Your task to perform on an android device: find which apps use the phone's location Image 0: 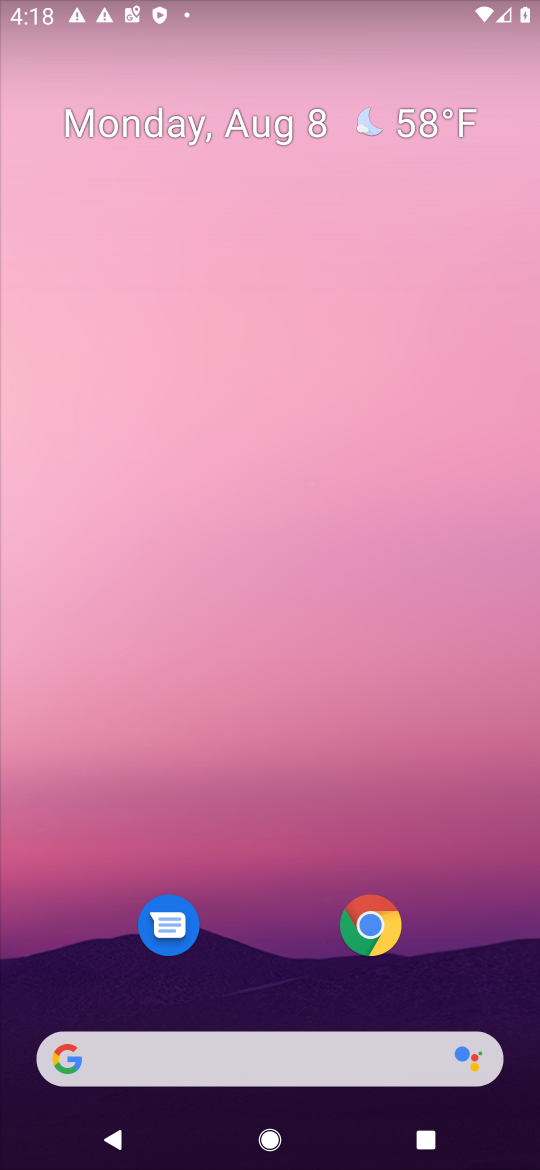
Step 0: drag from (265, 1018) to (174, 297)
Your task to perform on an android device: find which apps use the phone's location Image 1: 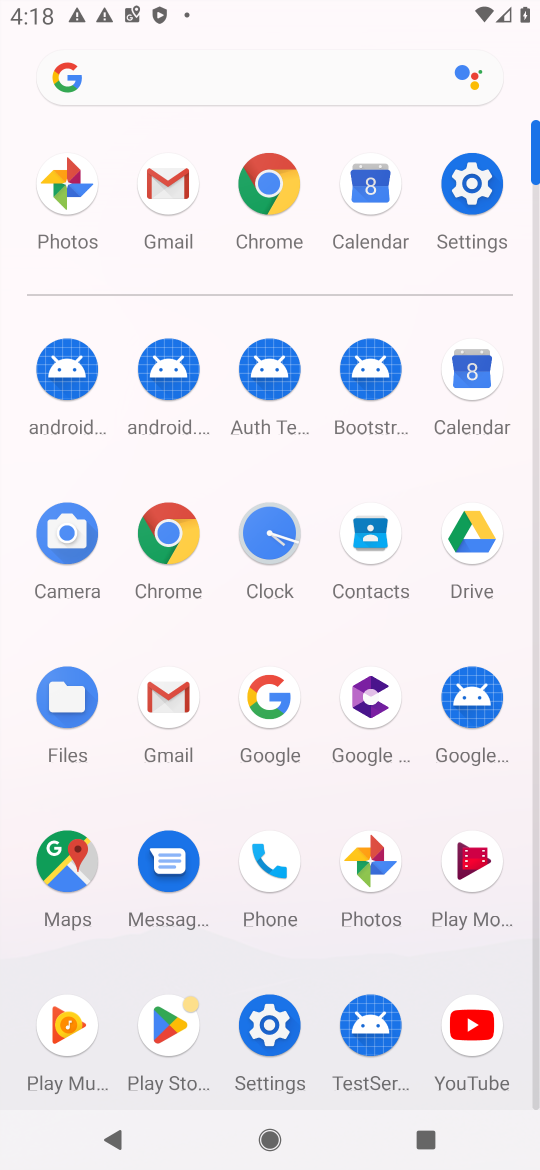
Step 1: click (468, 193)
Your task to perform on an android device: find which apps use the phone's location Image 2: 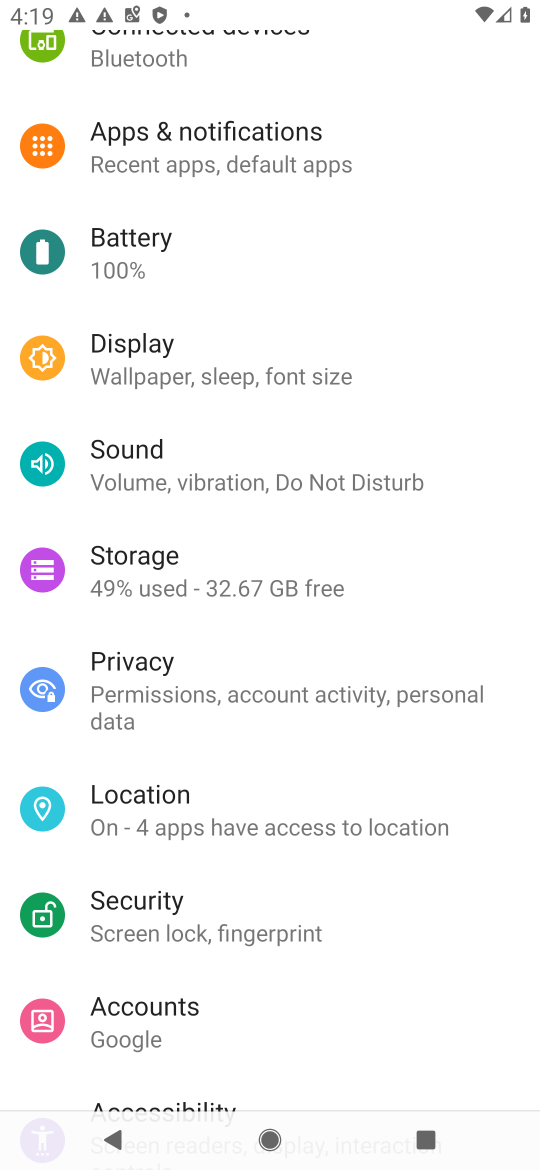
Step 2: click (114, 799)
Your task to perform on an android device: find which apps use the phone's location Image 3: 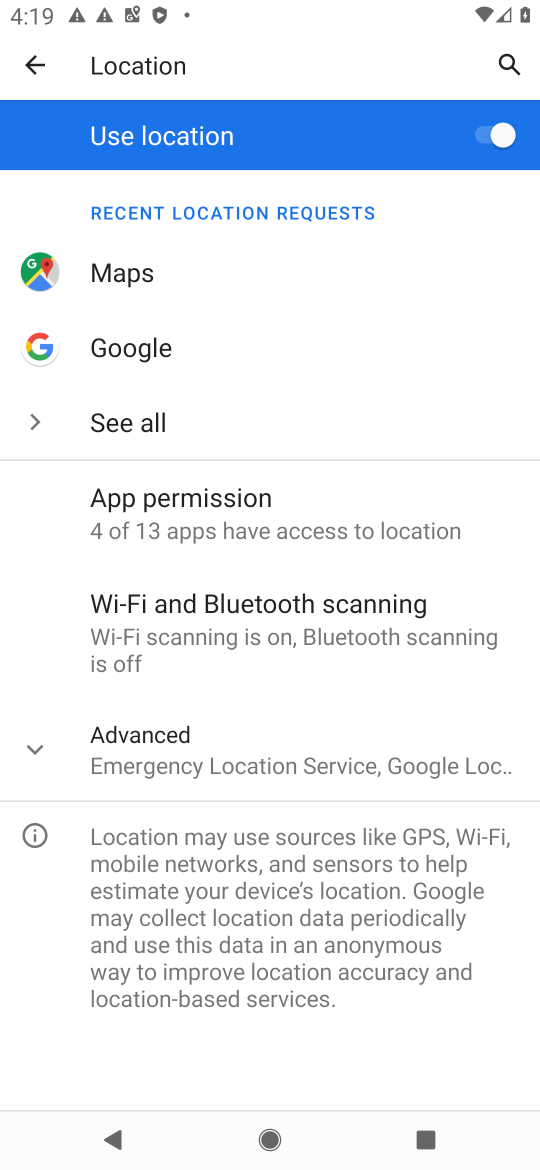
Step 3: click (196, 525)
Your task to perform on an android device: find which apps use the phone's location Image 4: 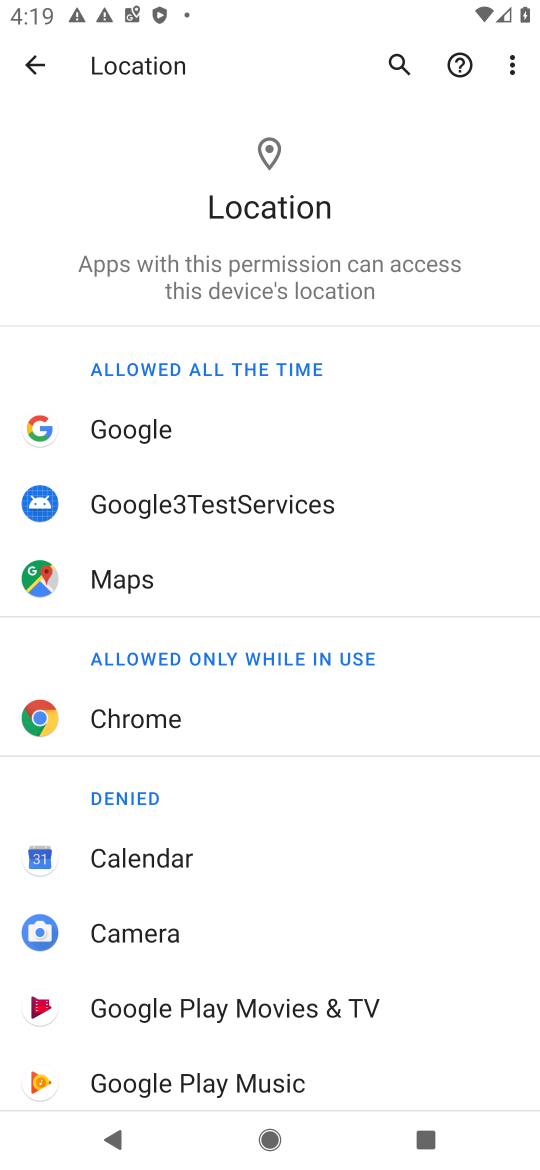
Step 4: task complete